Your task to perform on an android device: install app "Etsy: Buy & Sell Unique Items" Image 0: 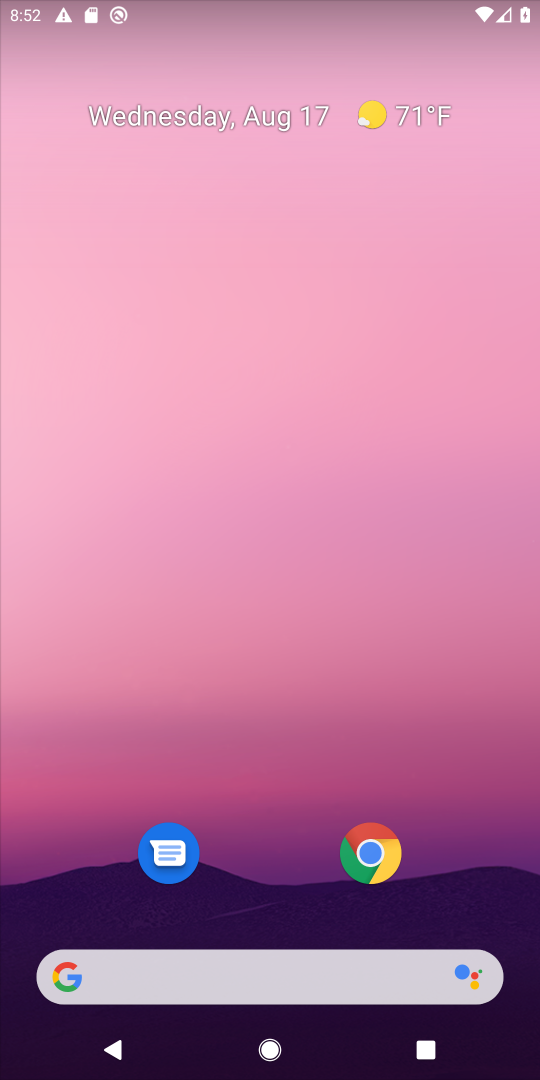
Step 0: drag from (259, 560) to (319, 132)
Your task to perform on an android device: install app "Etsy: Buy & Sell Unique Items" Image 1: 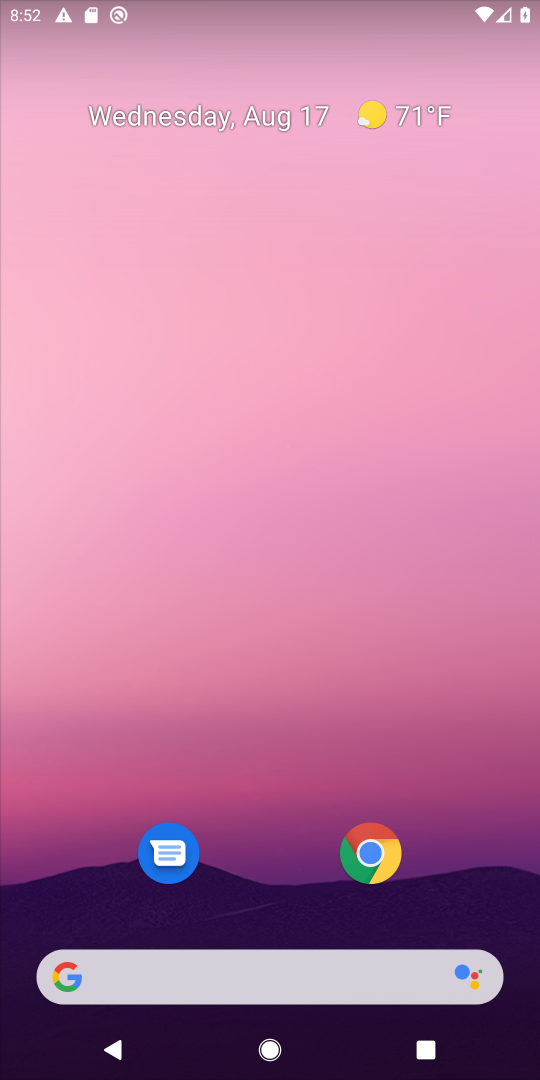
Step 1: drag from (254, 855) to (336, 173)
Your task to perform on an android device: install app "Etsy: Buy & Sell Unique Items" Image 2: 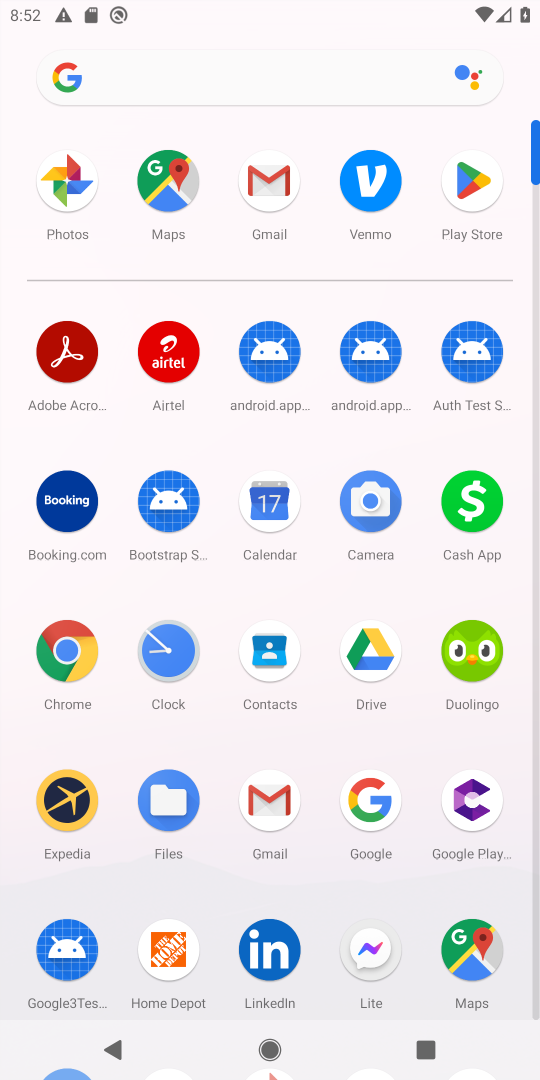
Step 2: click (481, 187)
Your task to perform on an android device: install app "Etsy: Buy & Sell Unique Items" Image 3: 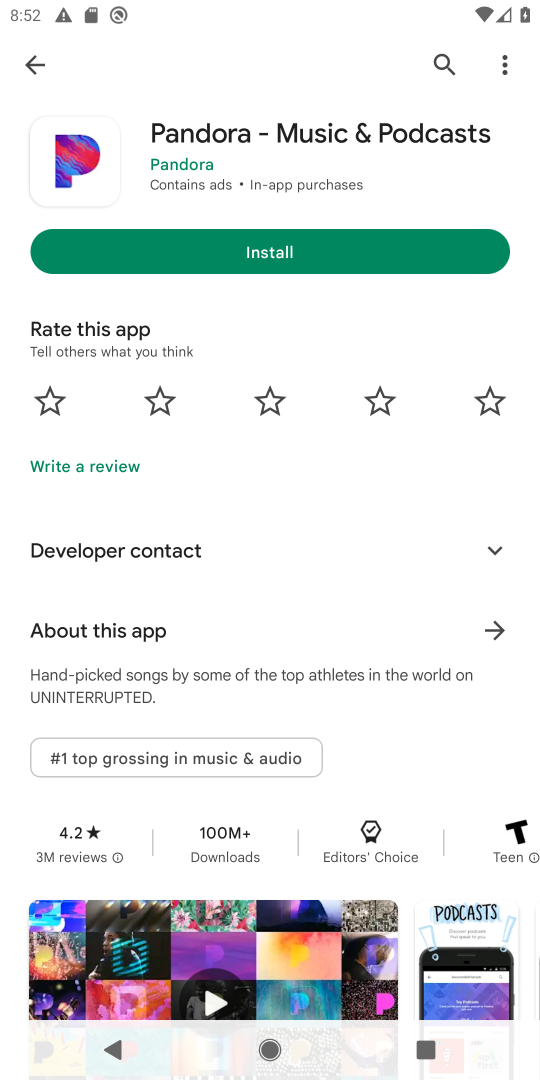
Step 3: click (443, 62)
Your task to perform on an android device: install app "Etsy: Buy & Sell Unique Items" Image 4: 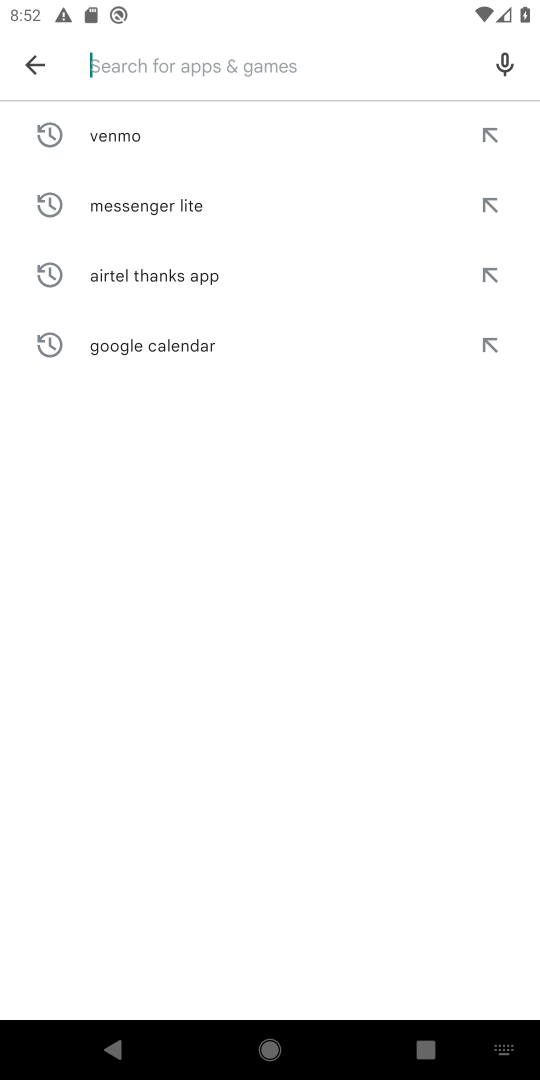
Step 4: type "Etsy: Buy & Sell Unique Items"
Your task to perform on an android device: install app "Etsy: Buy & Sell Unique Items" Image 5: 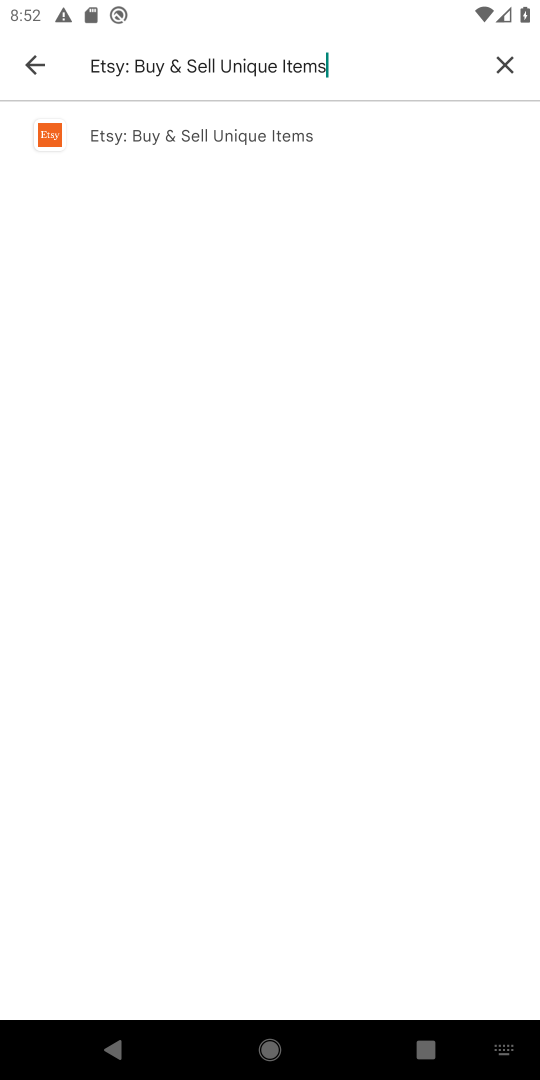
Step 5: click (279, 135)
Your task to perform on an android device: install app "Etsy: Buy & Sell Unique Items" Image 6: 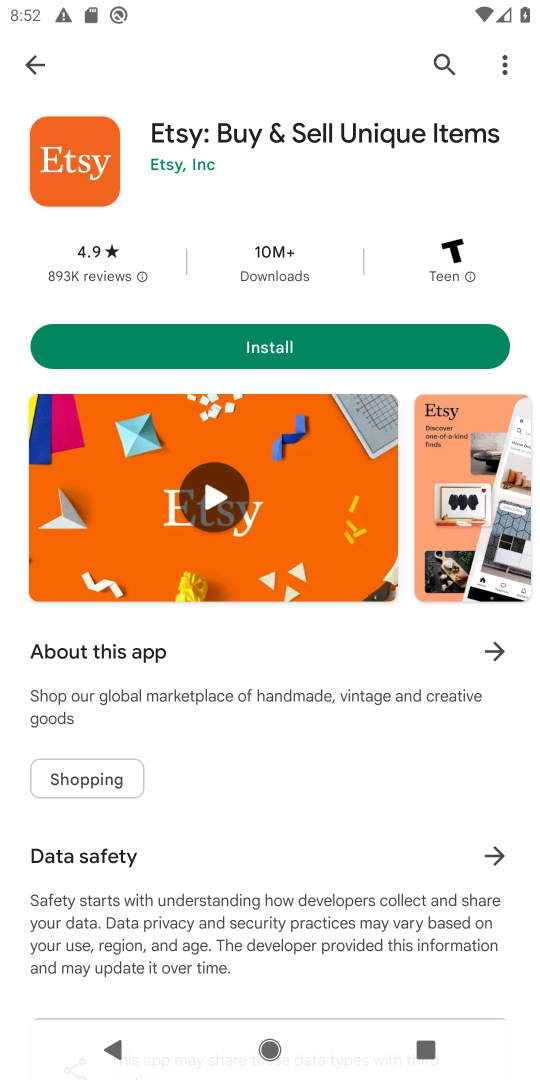
Step 6: click (324, 336)
Your task to perform on an android device: install app "Etsy: Buy & Sell Unique Items" Image 7: 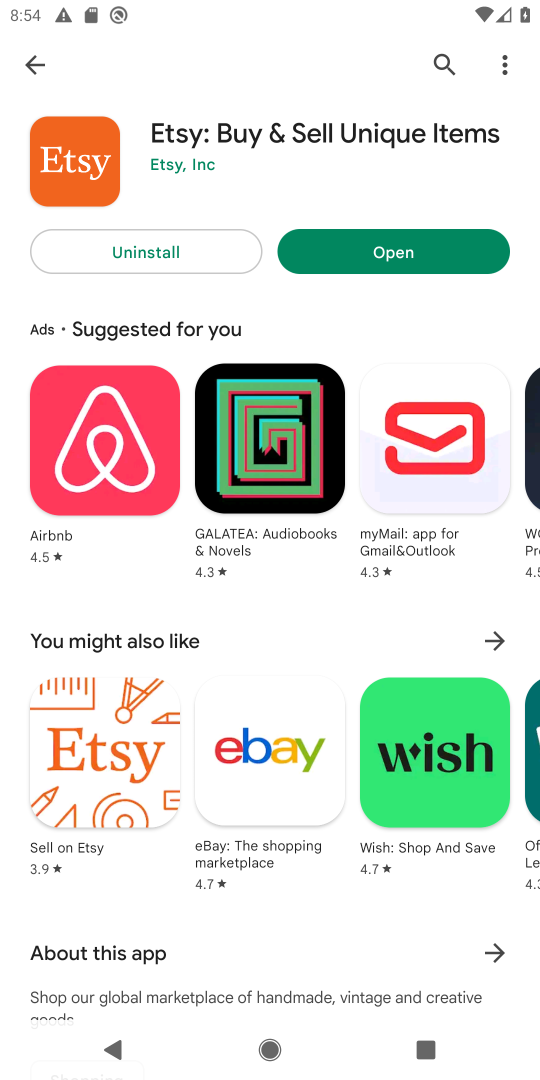
Step 7: task complete